Your task to perform on an android device: Open calendar and show me the second week of next month Image 0: 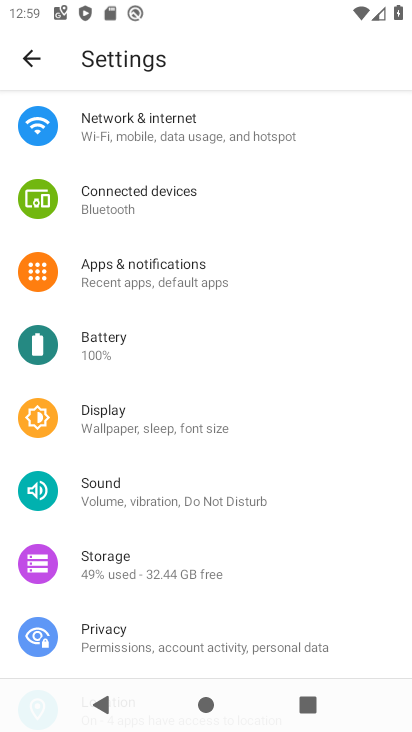
Step 0: press home button
Your task to perform on an android device: Open calendar and show me the second week of next month Image 1: 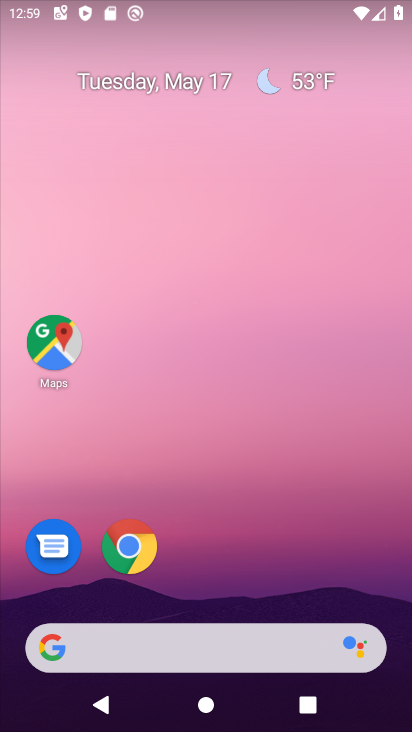
Step 1: drag from (233, 596) to (217, 100)
Your task to perform on an android device: Open calendar and show me the second week of next month Image 2: 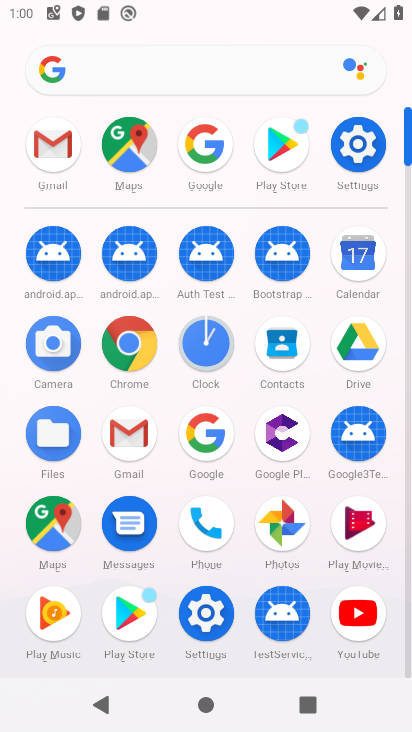
Step 2: click (355, 269)
Your task to perform on an android device: Open calendar and show me the second week of next month Image 3: 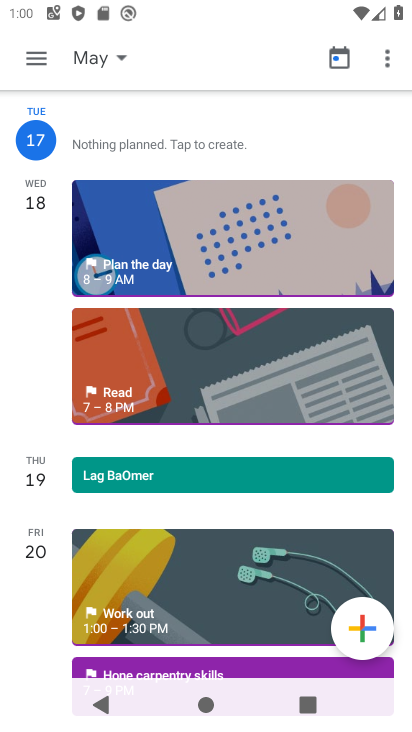
Step 3: click (380, 61)
Your task to perform on an android device: Open calendar and show me the second week of next month Image 4: 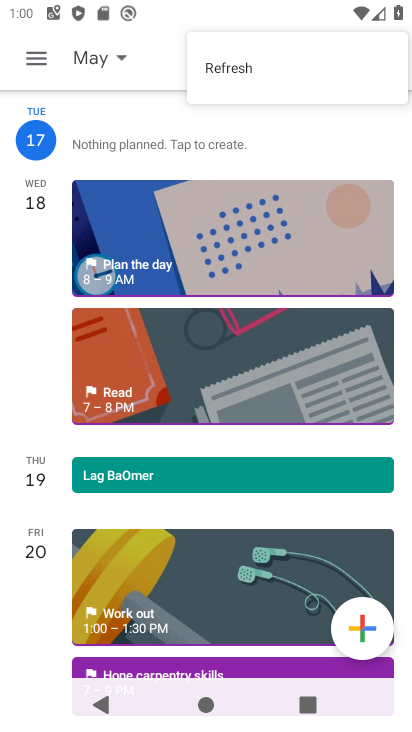
Step 4: click (112, 59)
Your task to perform on an android device: Open calendar and show me the second week of next month Image 5: 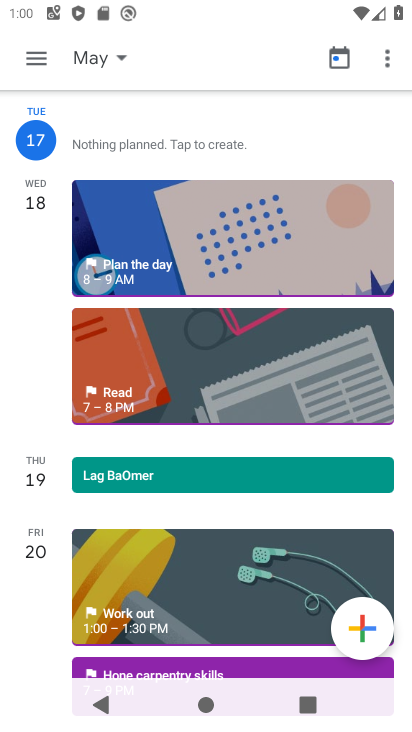
Step 5: click (112, 59)
Your task to perform on an android device: Open calendar and show me the second week of next month Image 6: 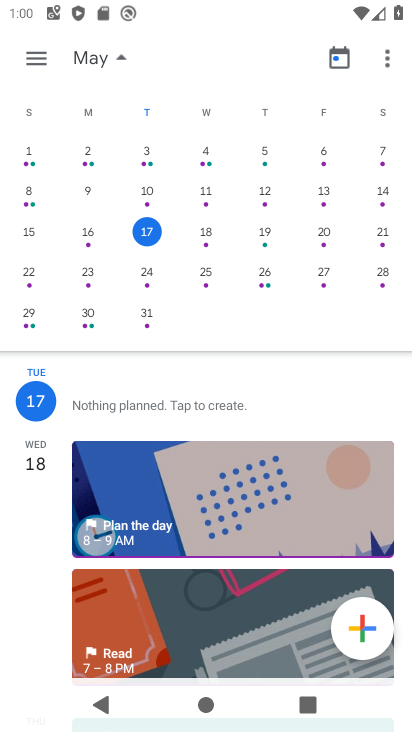
Step 6: drag from (338, 184) to (46, 208)
Your task to perform on an android device: Open calendar and show me the second week of next month Image 7: 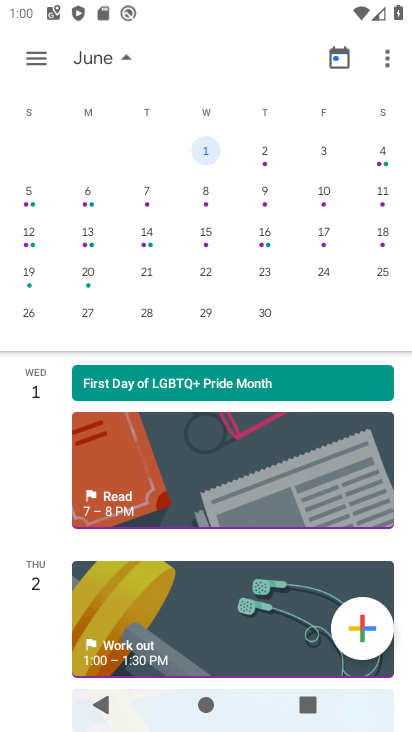
Step 7: click (25, 195)
Your task to perform on an android device: Open calendar and show me the second week of next month Image 8: 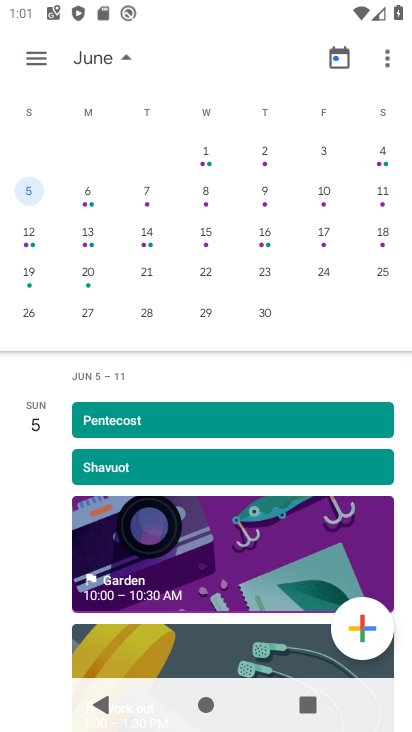
Step 8: task complete